Your task to perform on an android device: Open Google Chrome and click the shortcut for Amazon.com Image 0: 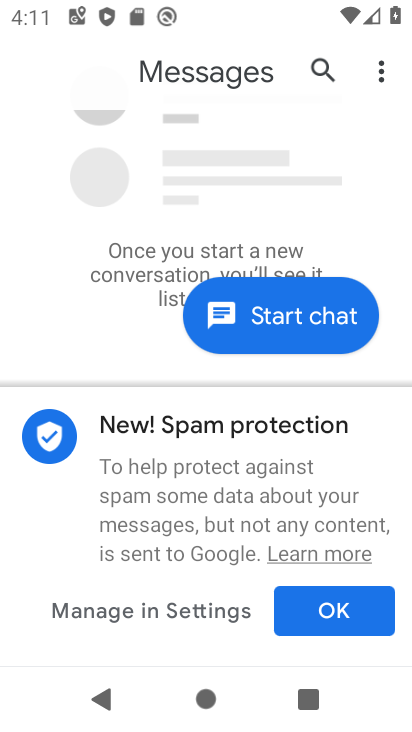
Step 0: press home button
Your task to perform on an android device: Open Google Chrome and click the shortcut for Amazon.com Image 1: 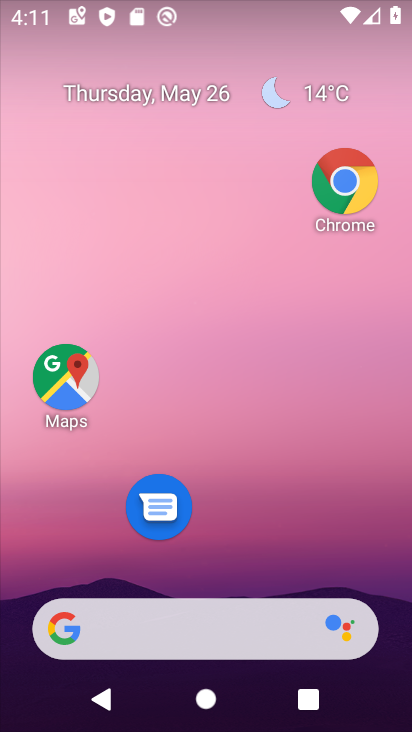
Step 1: drag from (279, 563) to (300, 65)
Your task to perform on an android device: Open Google Chrome and click the shortcut for Amazon.com Image 2: 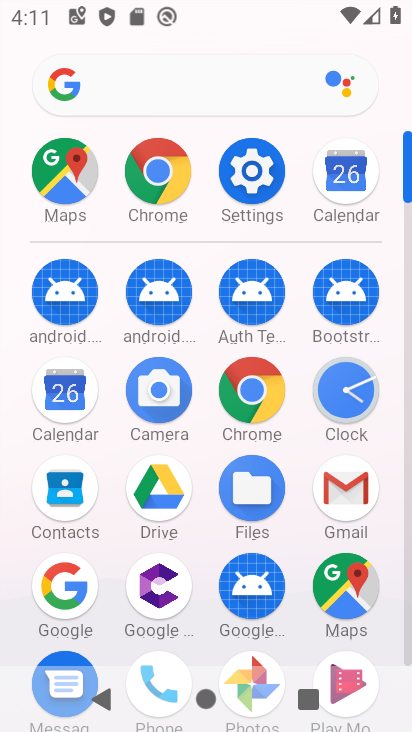
Step 2: click (247, 385)
Your task to perform on an android device: Open Google Chrome and click the shortcut for Amazon.com Image 3: 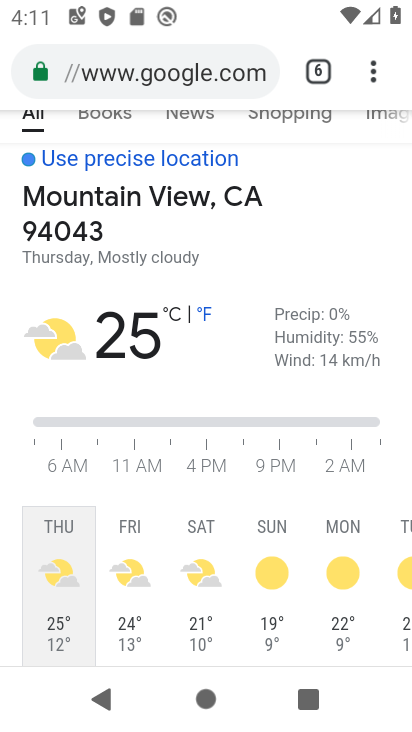
Step 3: drag from (372, 73) to (228, 143)
Your task to perform on an android device: Open Google Chrome and click the shortcut for Amazon.com Image 4: 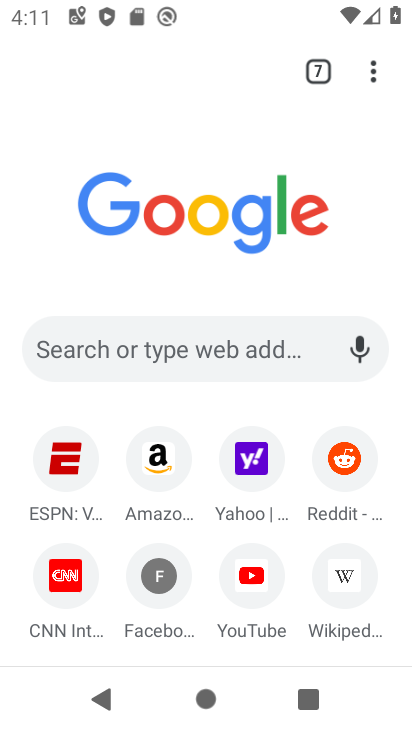
Step 4: click (156, 450)
Your task to perform on an android device: Open Google Chrome and click the shortcut for Amazon.com Image 5: 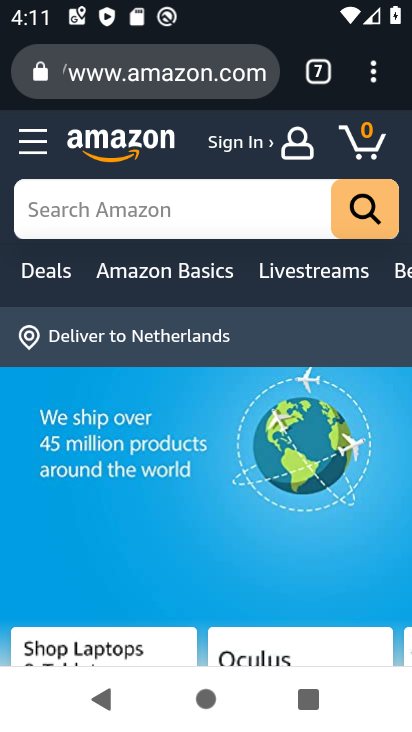
Step 5: task complete